Your task to perform on an android device: Check the news Image 0: 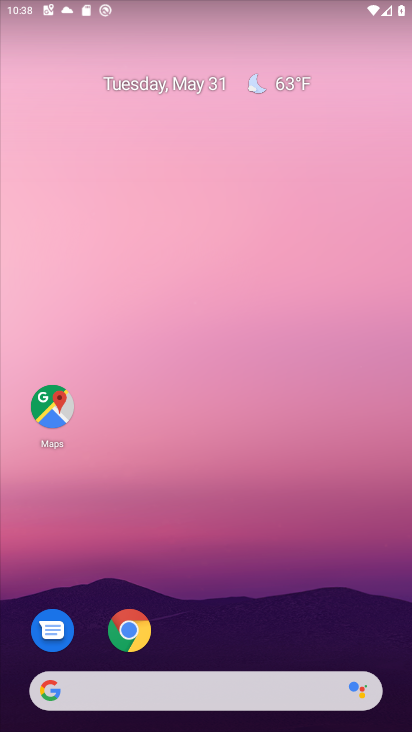
Step 0: click (127, 629)
Your task to perform on an android device: Check the news Image 1: 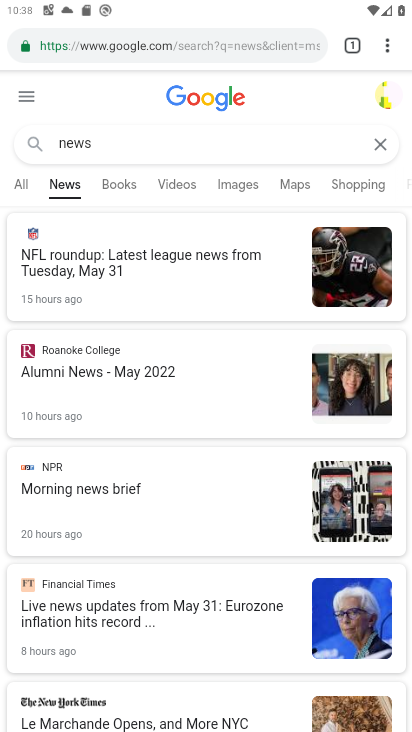
Step 1: task complete